Your task to perform on an android device: manage bookmarks in the chrome app Image 0: 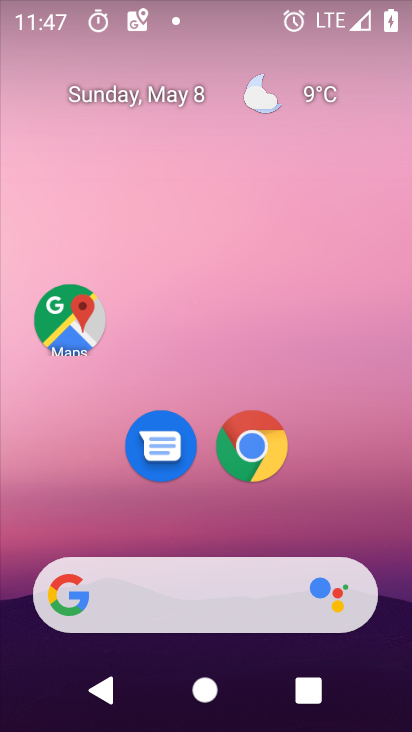
Step 0: drag from (360, 547) to (396, 587)
Your task to perform on an android device: manage bookmarks in the chrome app Image 1: 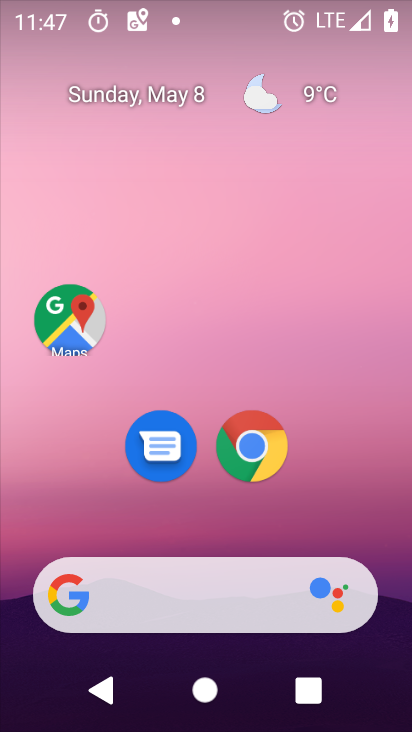
Step 1: click (250, 449)
Your task to perform on an android device: manage bookmarks in the chrome app Image 2: 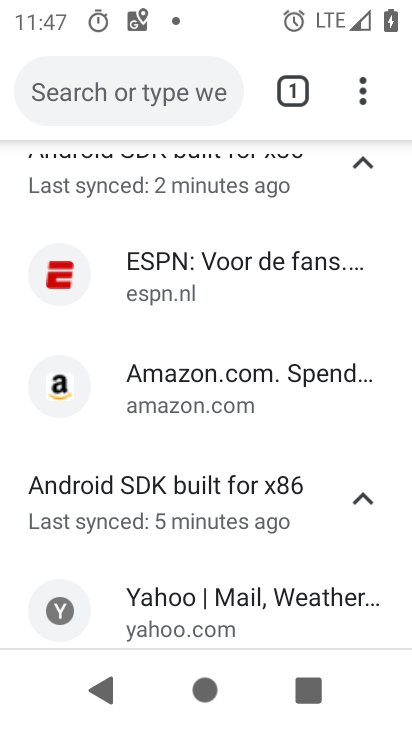
Step 2: drag from (360, 93) to (124, 353)
Your task to perform on an android device: manage bookmarks in the chrome app Image 3: 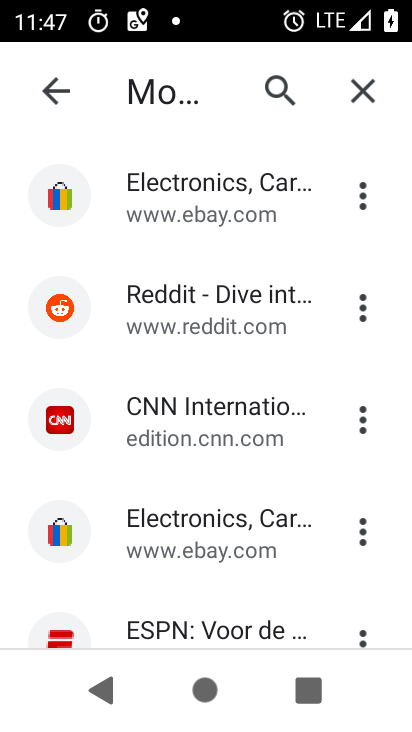
Step 3: click (373, 531)
Your task to perform on an android device: manage bookmarks in the chrome app Image 4: 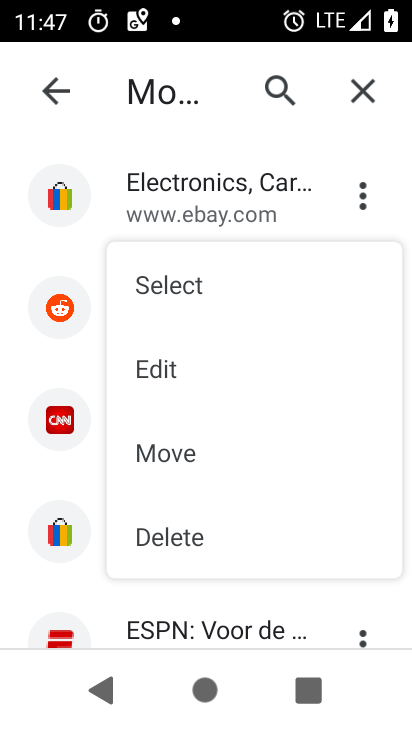
Step 4: click (195, 542)
Your task to perform on an android device: manage bookmarks in the chrome app Image 5: 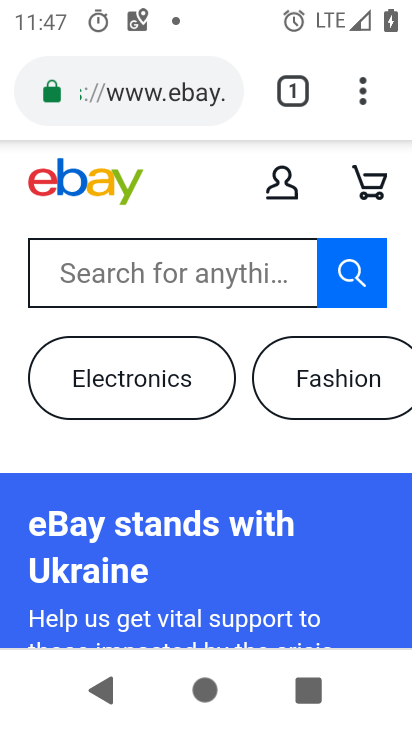
Step 5: click (361, 90)
Your task to perform on an android device: manage bookmarks in the chrome app Image 6: 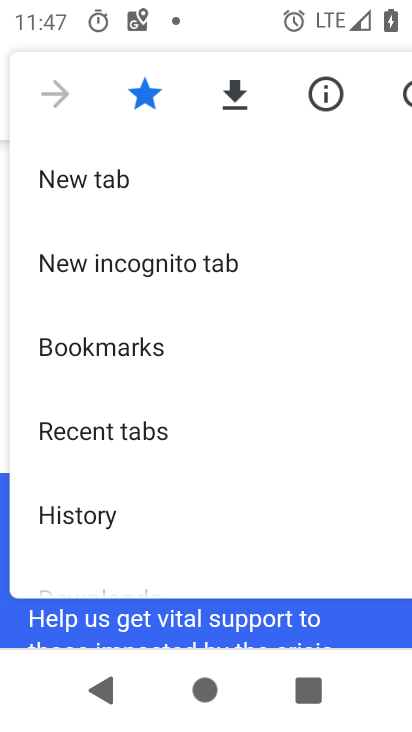
Step 6: click (99, 349)
Your task to perform on an android device: manage bookmarks in the chrome app Image 7: 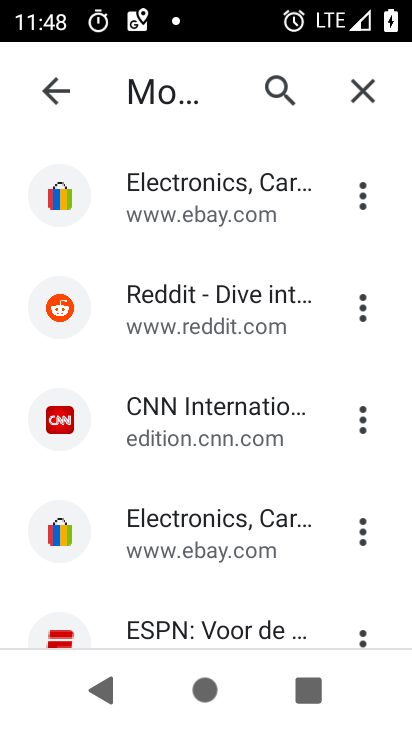
Step 7: click (367, 197)
Your task to perform on an android device: manage bookmarks in the chrome app Image 8: 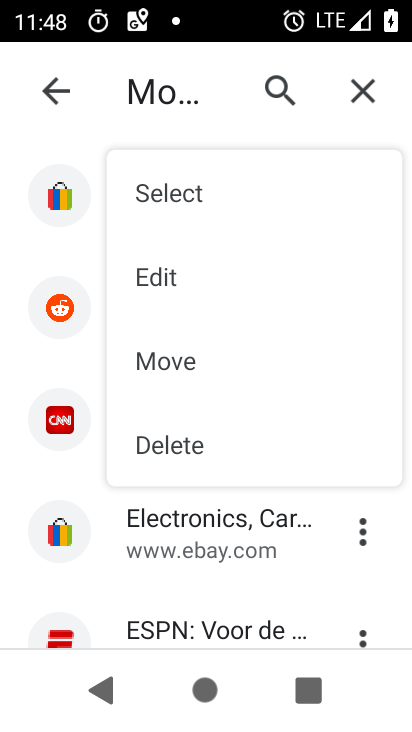
Step 8: click (184, 454)
Your task to perform on an android device: manage bookmarks in the chrome app Image 9: 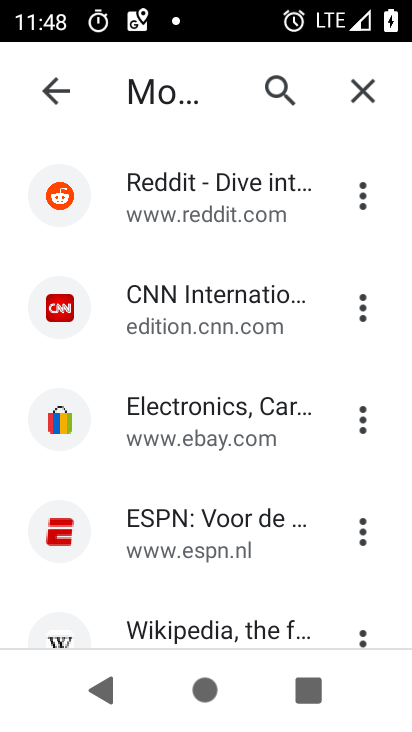
Step 9: task complete